Your task to perform on an android device: Show me recent news Image 0: 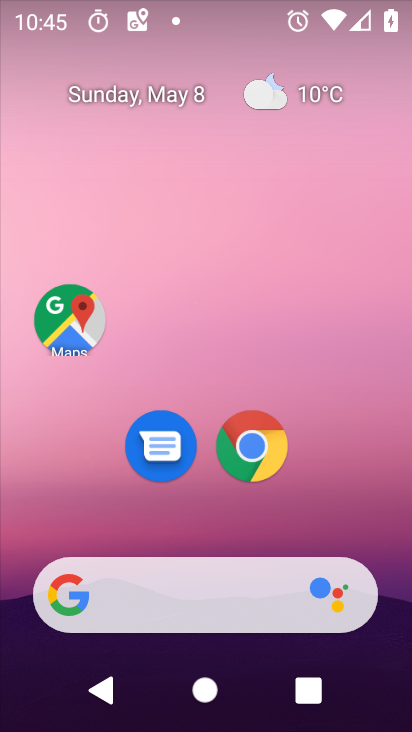
Step 0: drag from (14, 224) to (364, 429)
Your task to perform on an android device: Show me recent news Image 1: 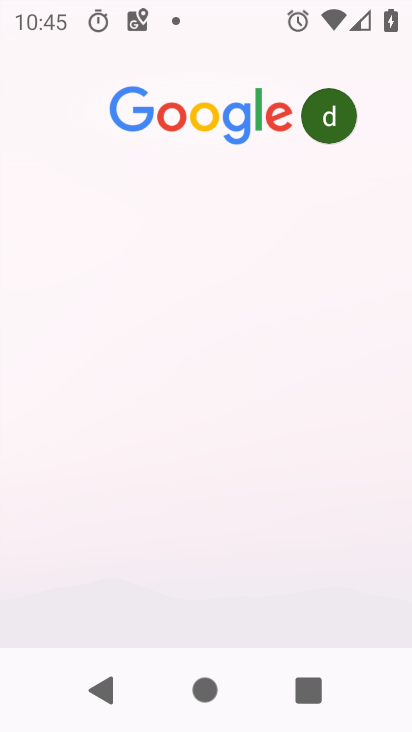
Step 1: task complete